Your task to perform on an android device: Search for Italian restaurants on Maps Image 0: 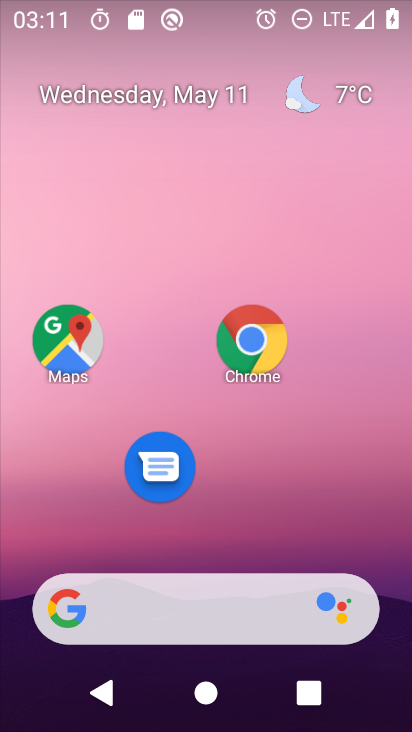
Step 0: click (64, 357)
Your task to perform on an android device: Search for Italian restaurants on Maps Image 1: 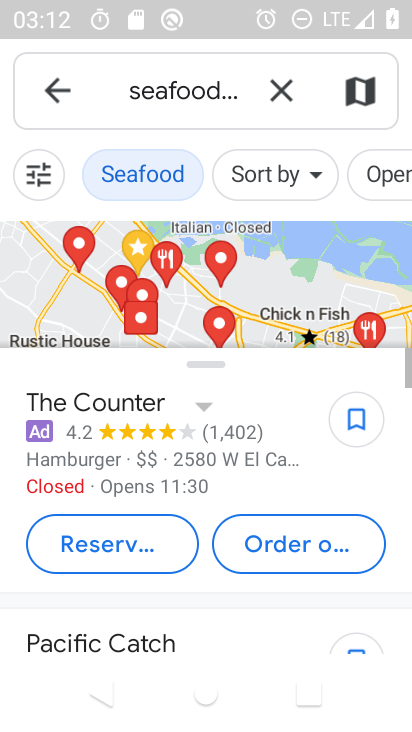
Step 1: click (277, 93)
Your task to perform on an android device: Search for Italian restaurants on Maps Image 2: 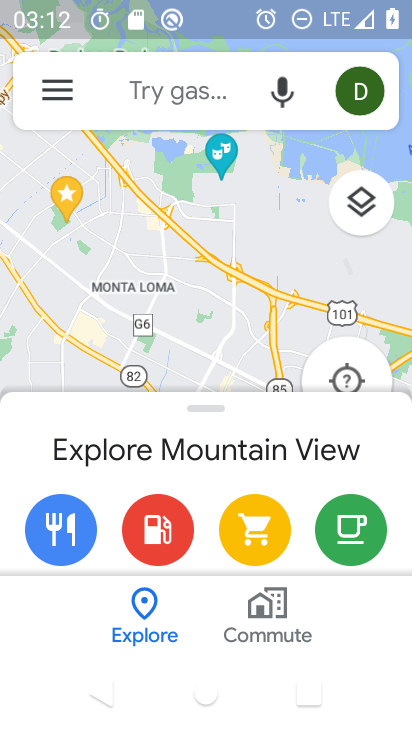
Step 2: click (164, 92)
Your task to perform on an android device: Search for Italian restaurants on Maps Image 3: 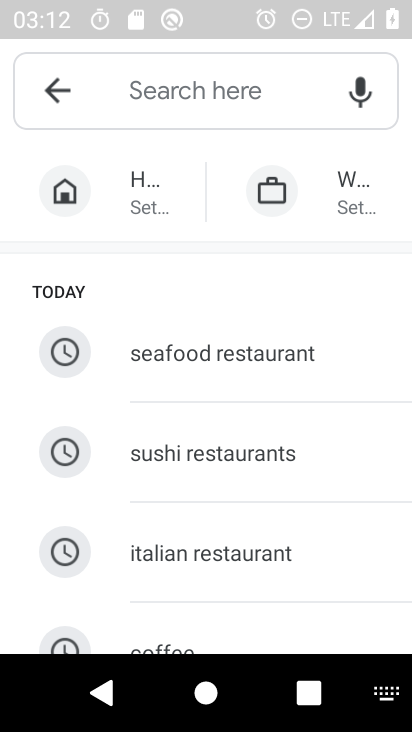
Step 3: click (187, 560)
Your task to perform on an android device: Search for Italian restaurants on Maps Image 4: 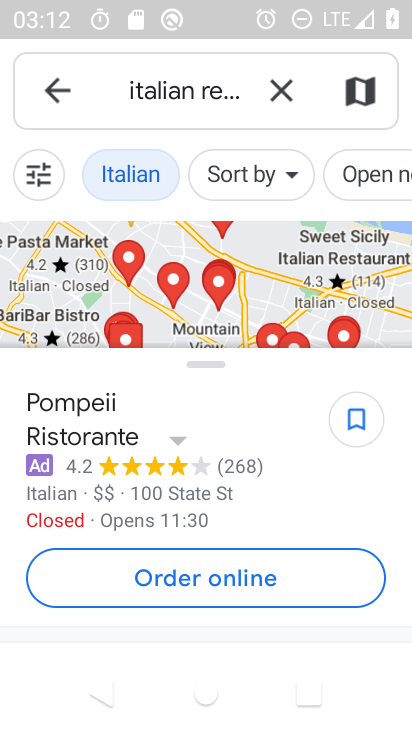
Step 4: task complete